Your task to perform on an android device: change the clock display to digital Image 0: 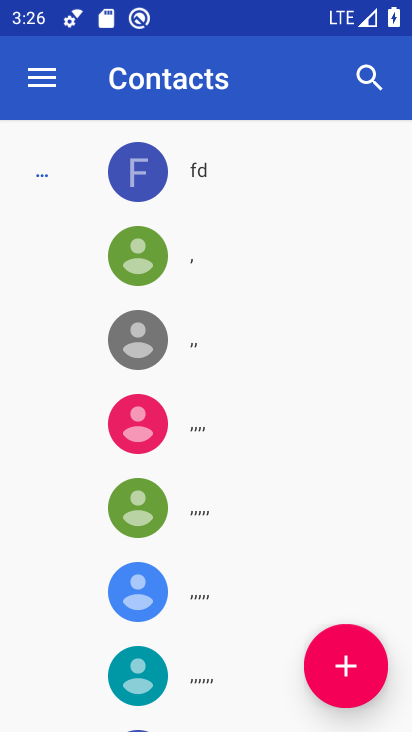
Step 0: press home button
Your task to perform on an android device: change the clock display to digital Image 1: 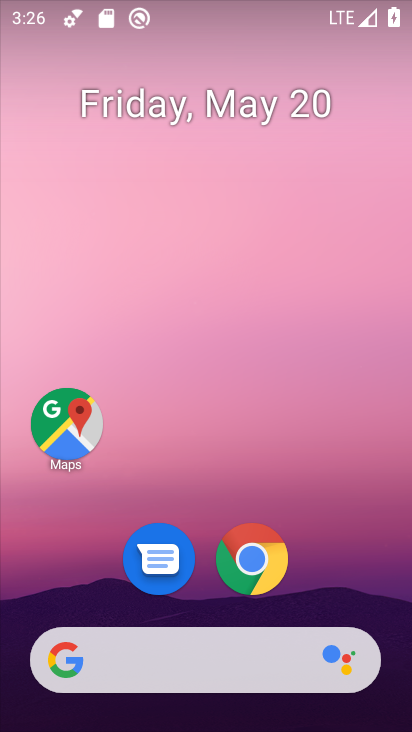
Step 1: drag from (325, 535) to (344, 40)
Your task to perform on an android device: change the clock display to digital Image 2: 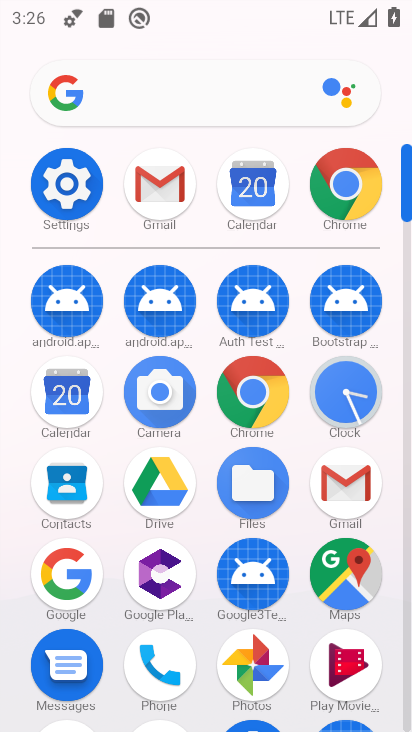
Step 2: click (340, 389)
Your task to perform on an android device: change the clock display to digital Image 3: 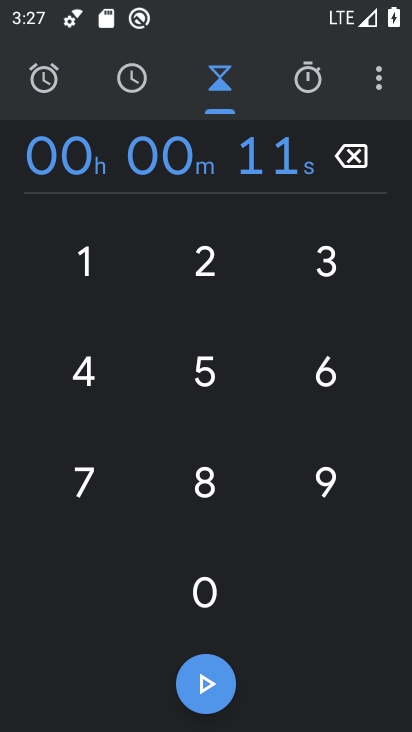
Step 3: click (136, 82)
Your task to perform on an android device: change the clock display to digital Image 4: 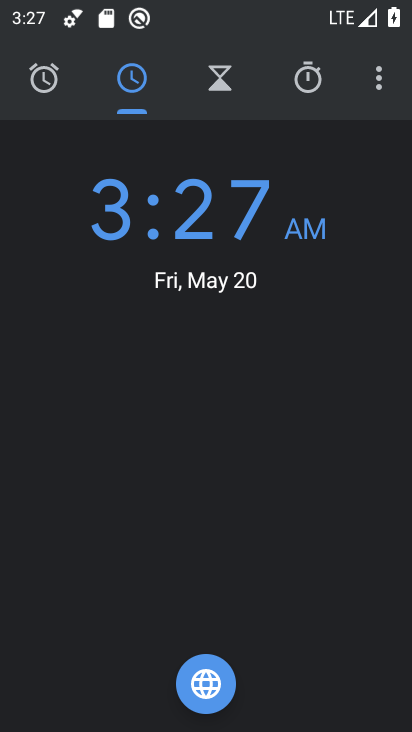
Step 4: task complete